Your task to perform on an android device: Empty the shopping cart on target.com. Image 0: 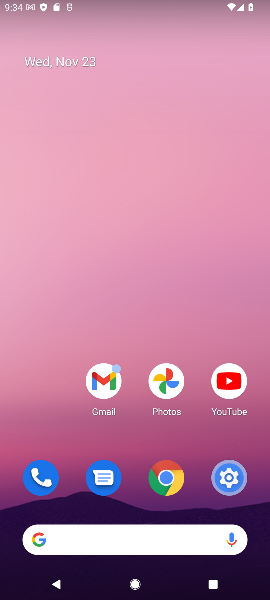
Step 0: click (117, 551)
Your task to perform on an android device: Empty the shopping cart on target.com. Image 1: 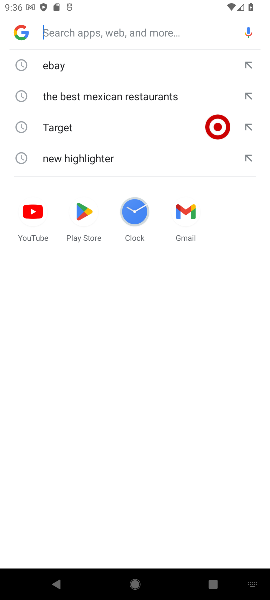
Step 1: click (107, 129)
Your task to perform on an android device: Empty the shopping cart on target.com. Image 2: 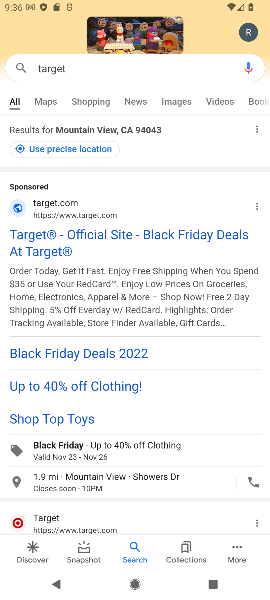
Step 2: click (62, 229)
Your task to perform on an android device: Empty the shopping cart on target.com. Image 3: 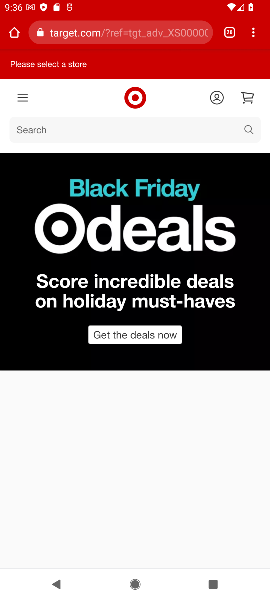
Step 3: click (73, 125)
Your task to perform on an android device: Empty the shopping cart on target.com. Image 4: 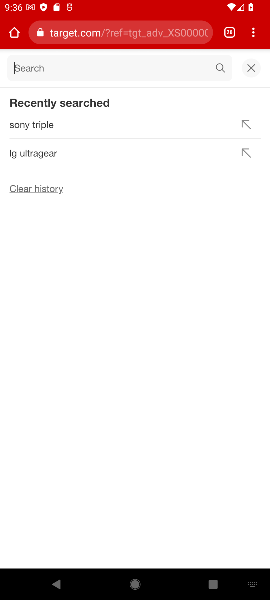
Step 4: click (241, 68)
Your task to perform on an android device: Empty the shopping cart on target.com. Image 5: 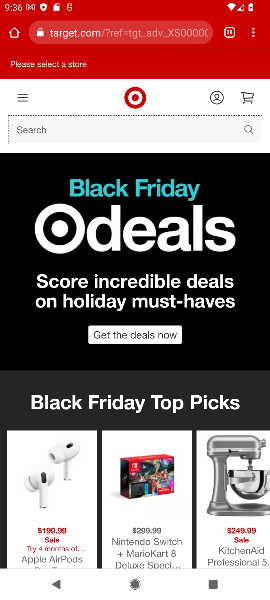
Step 5: click (244, 88)
Your task to perform on an android device: Empty the shopping cart on target.com. Image 6: 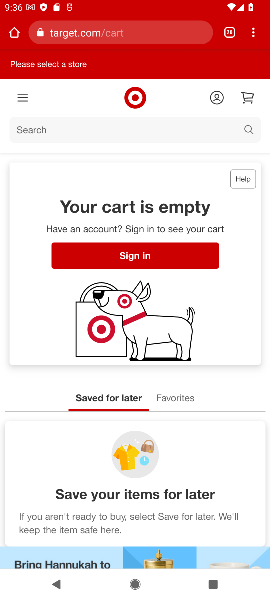
Step 6: task complete